Your task to perform on an android device: Look up the best rated bike seats on Target Image 0: 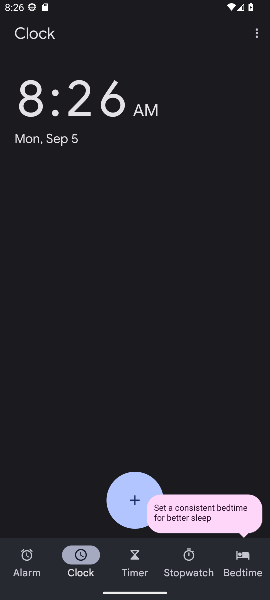
Step 0: press home button
Your task to perform on an android device: Look up the best rated bike seats on Target Image 1: 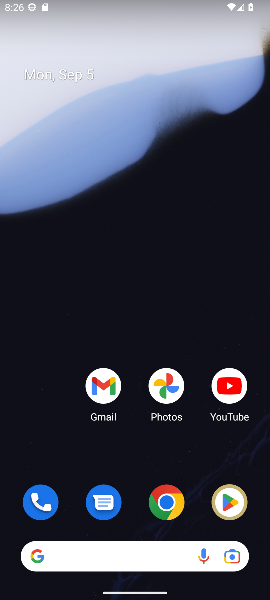
Step 1: click (122, 20)
Your task to perform on an android device: Look up the best rated bike seats on Target Image 2: 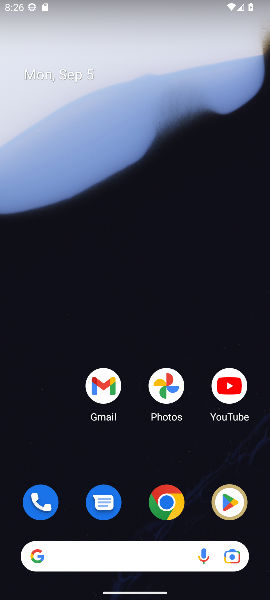
Step 2: drag from (39, 434) to (57, 25)
Your task to perform on an android device: Look up the best rated bike seats on Target Image 3: 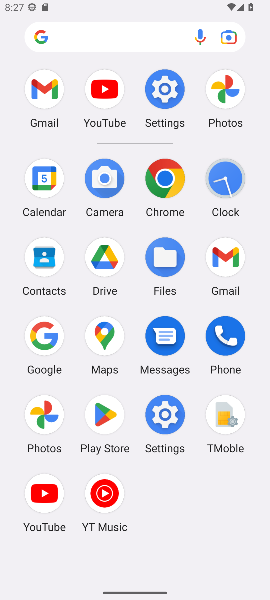
Step 3: click (52, 347)
Your task to perform on an android device: Look up the best rated bike seats on Target Image 4: 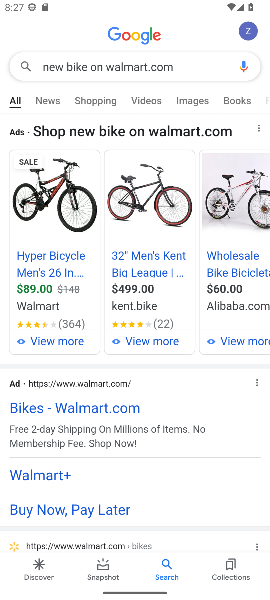
Step 4: press back button
Your task to perform on an android device: Look up the best rated bike seats on Target Image 5: 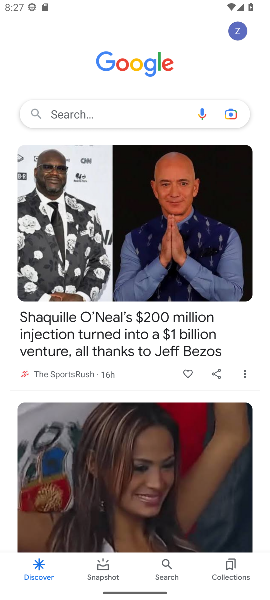
Step 5: click (69, 110)
Your task to perform on an android device: Look up the best rated bike seats on Target Image 6: 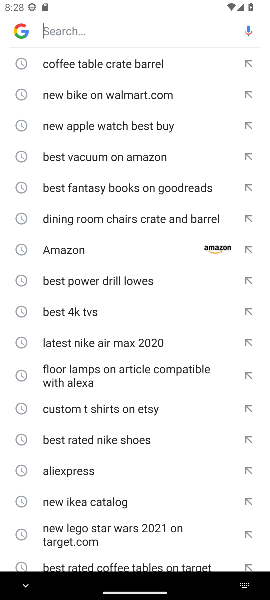
Step 6: type "best rated bike seats on Target"
Your task to perform on an android device: Look up the best rated bike seats on Target Image 7: 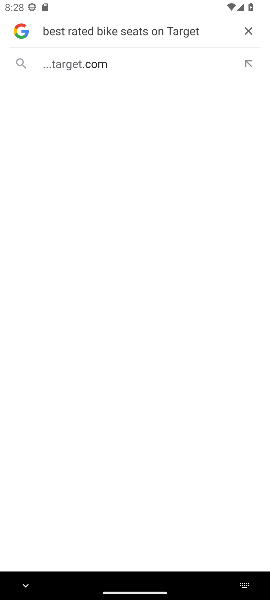
Step 7: click (63, 72)
Your task to perform on an android device: Look up the best rated bike seats on Target Image 8: 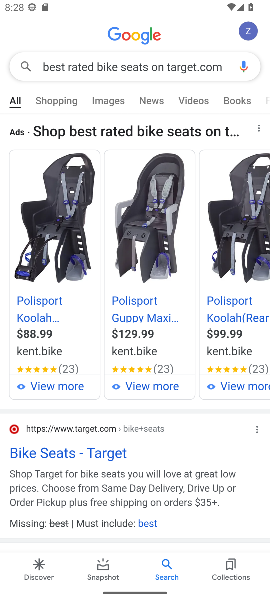
Step 8: task complete